Your task to perform on an android device: change the clock style Image 0: 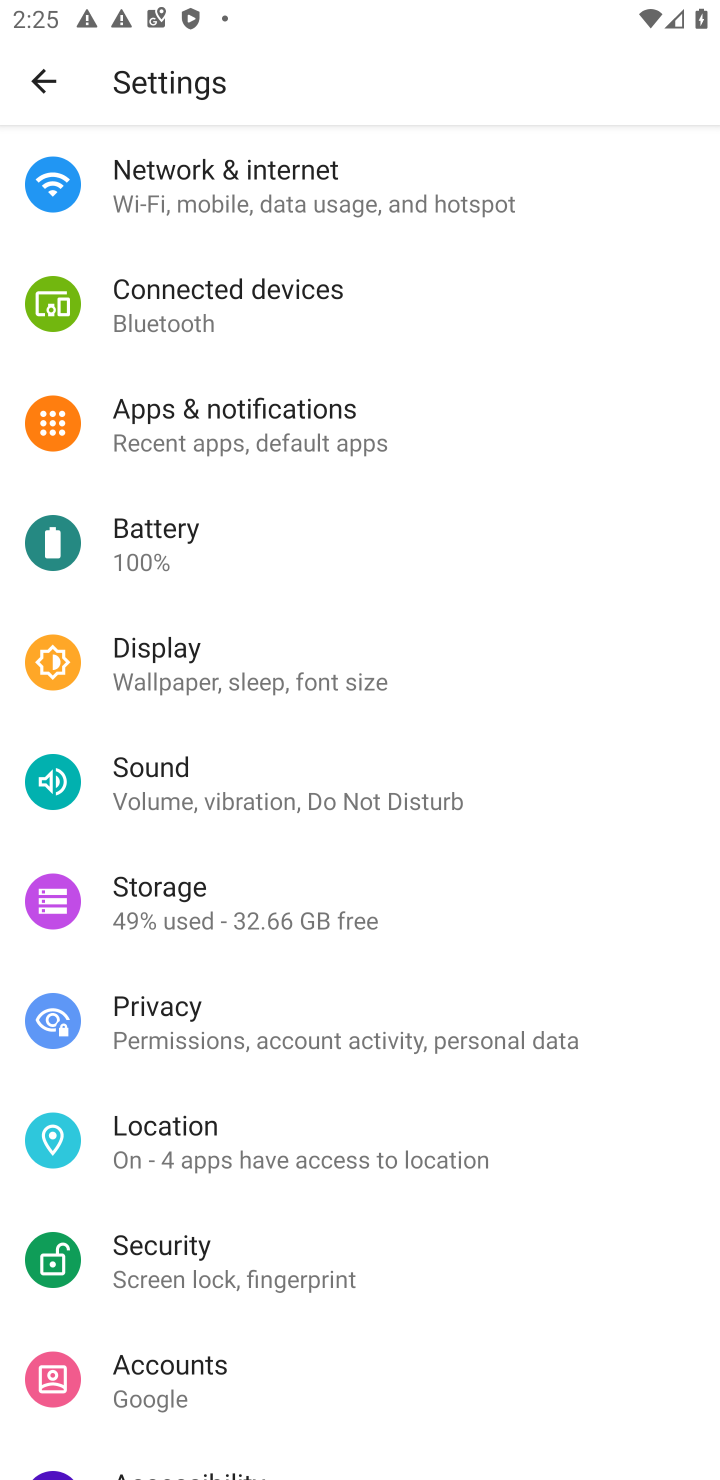
Step 0: press home button
Your task to perform on an android device: change the clock style Image 1: 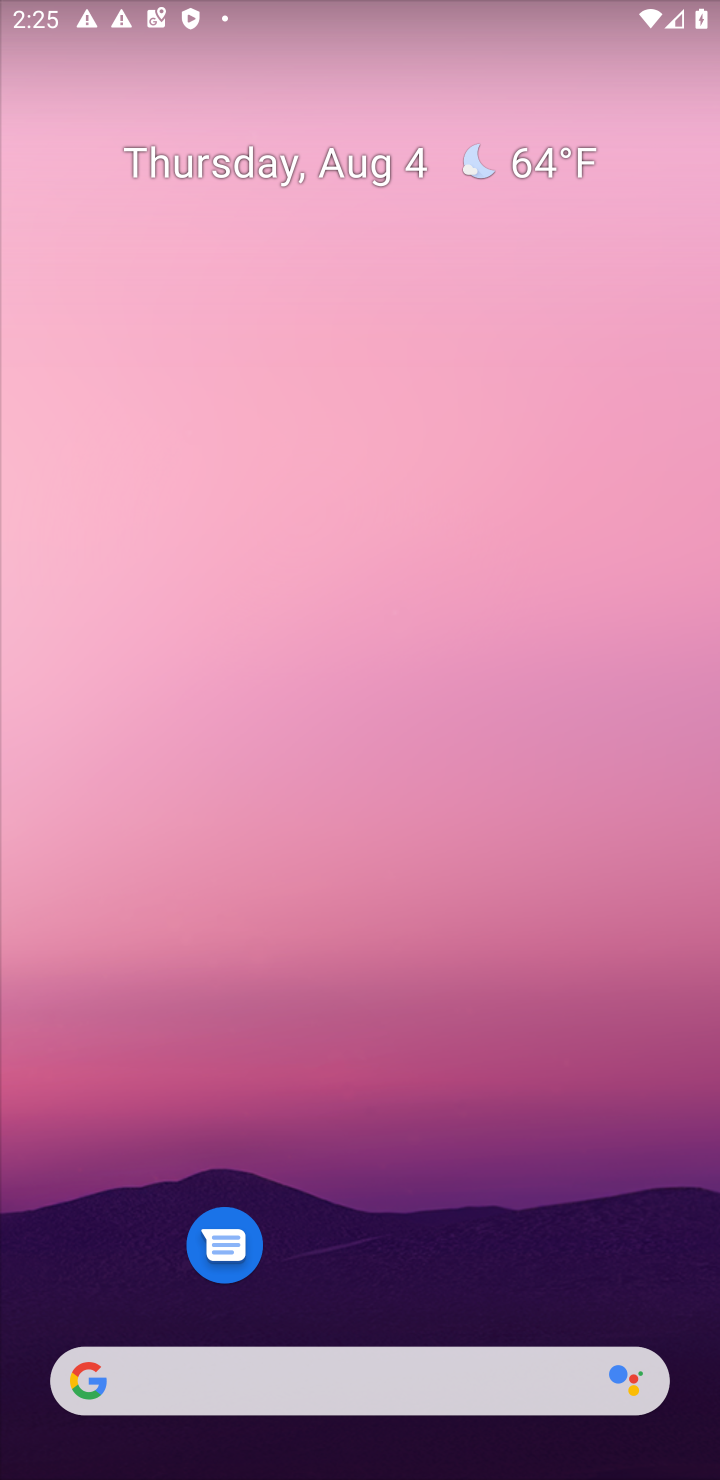
Step 1: drag from (561, 1188) to (571, 2)
Your task to perform on an android device: change the clock style Image 2: 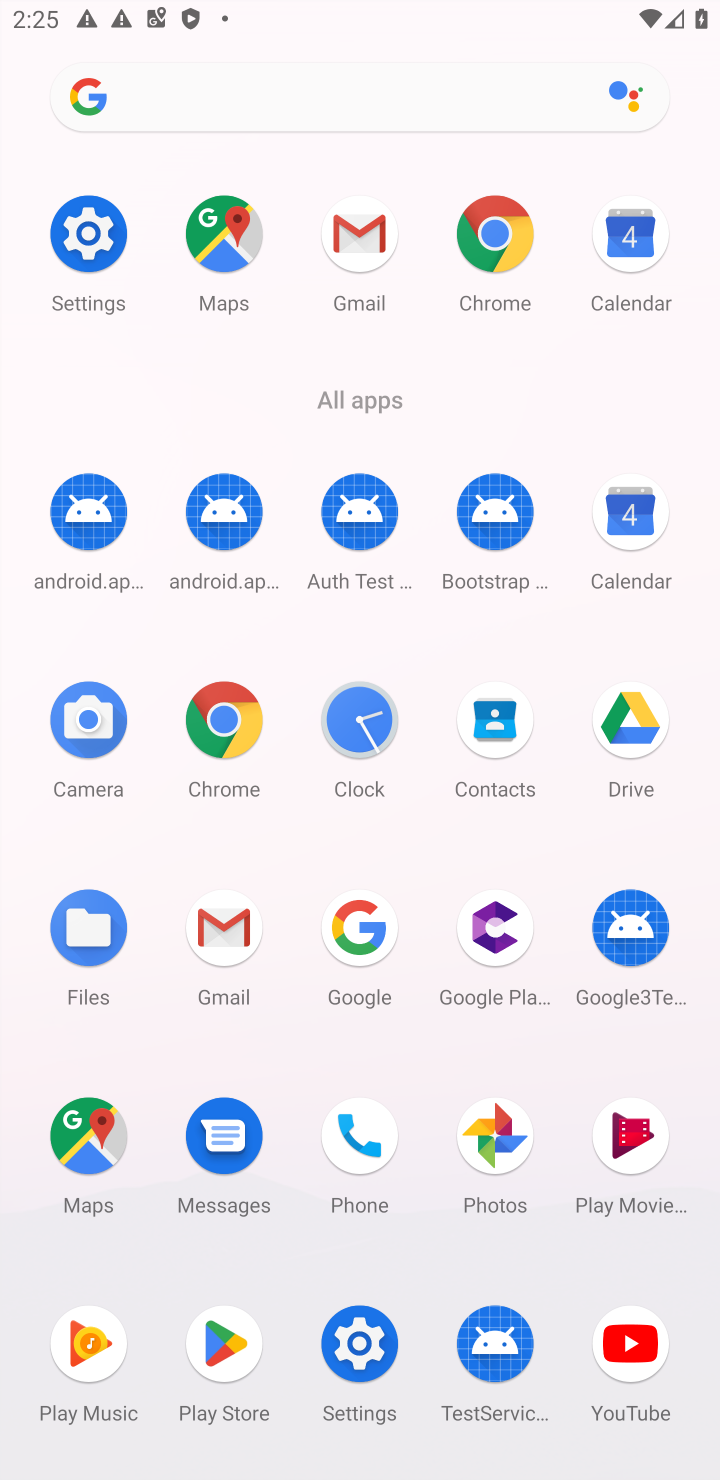
Step 2: click (375, 709)
Your task to perform on an android device: change the clock style Image 3: 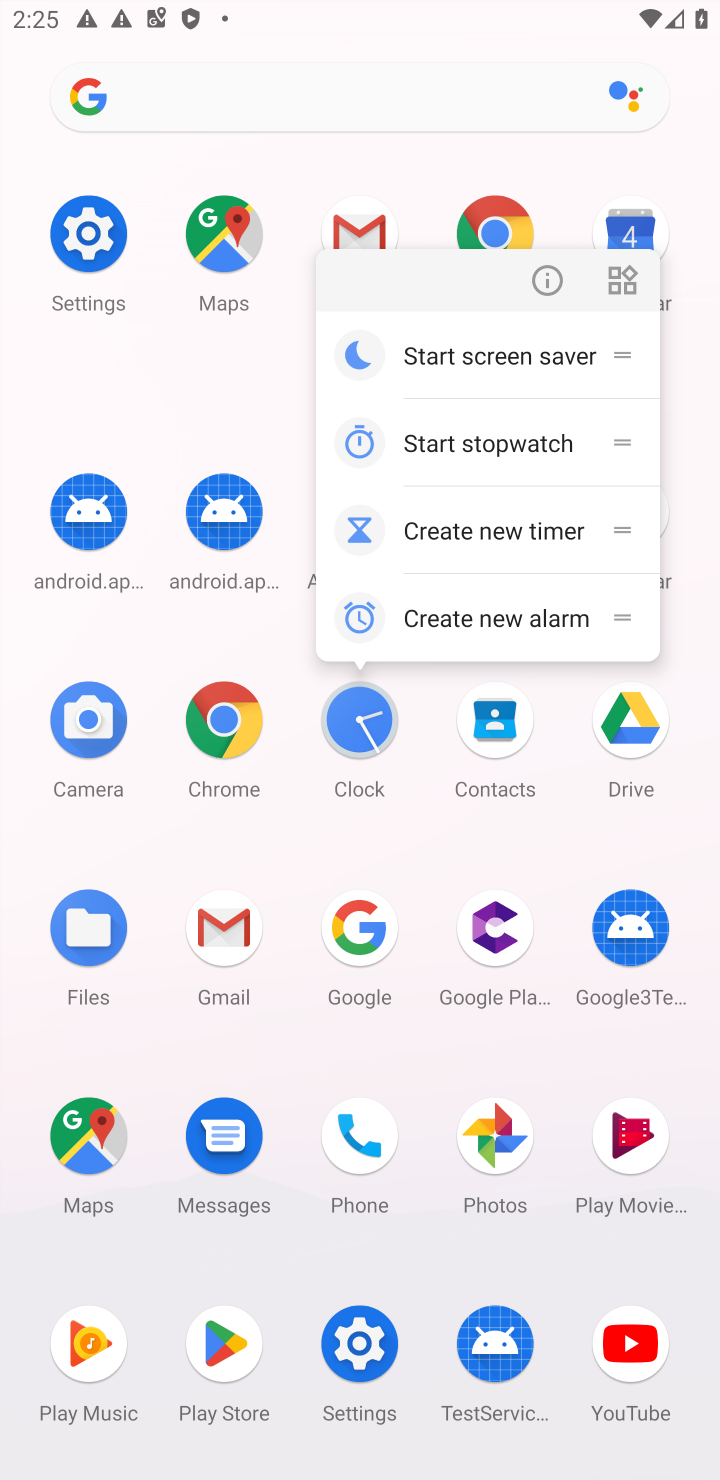
Step 3: click (349, 706)
Your task to perform on an android device: change the clock style Image 4: 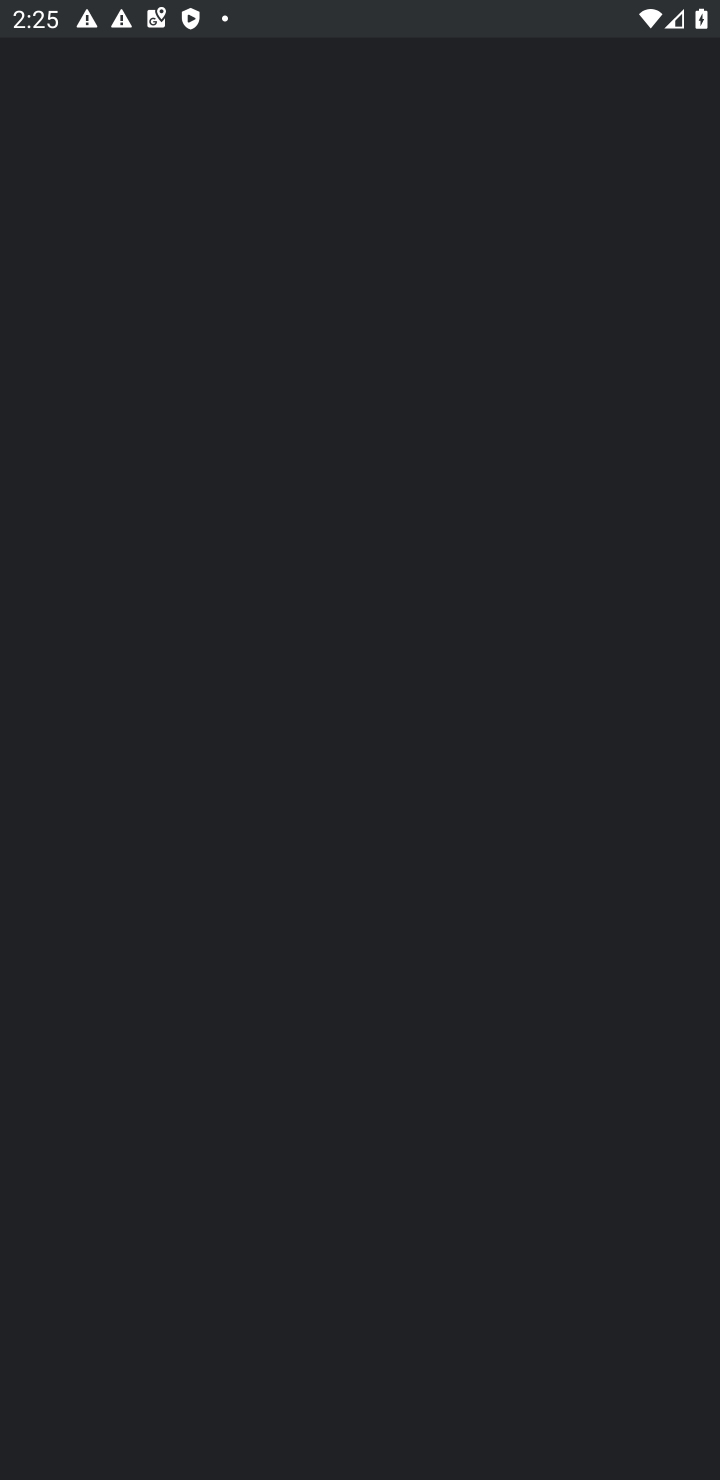
Step 4: click (360, 739)
Your task to perform on an android device: change the clock style Image 5: 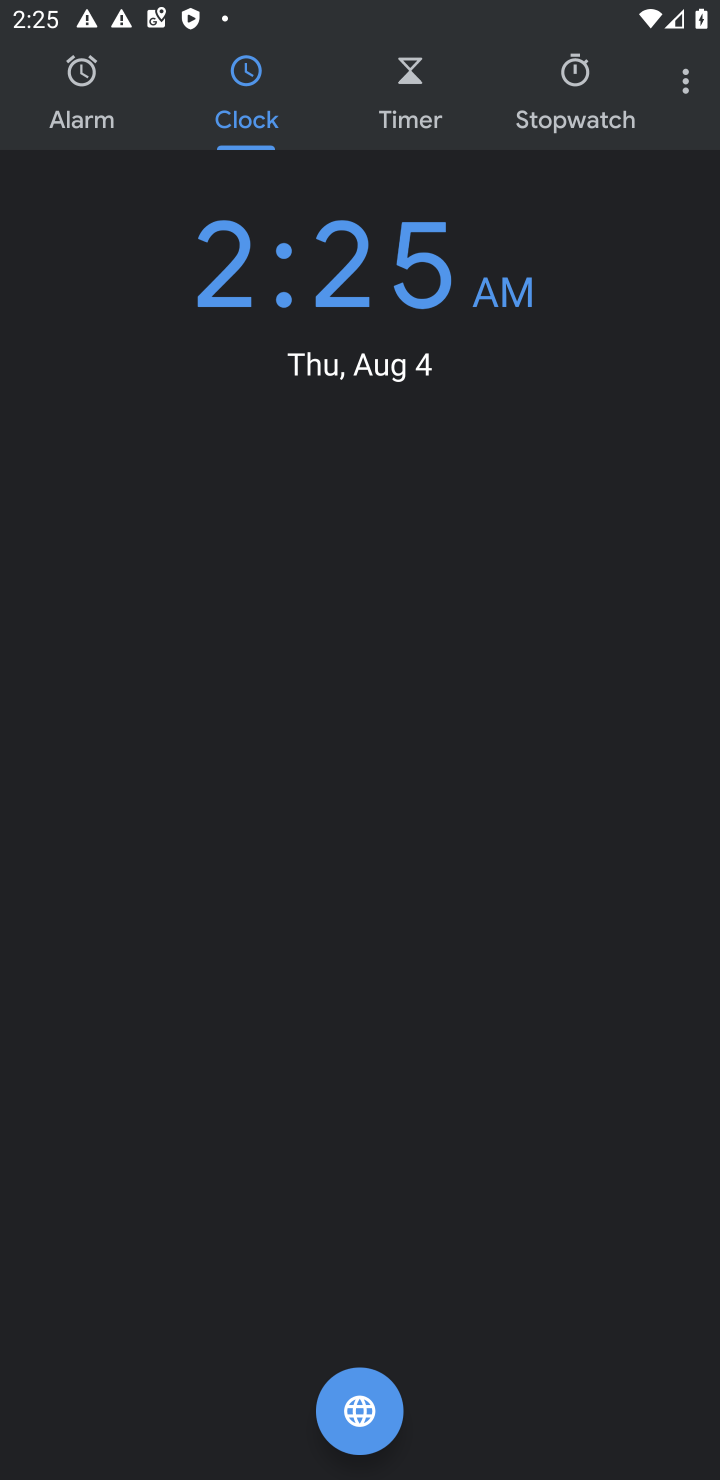
Step 5: click (696, 78)
Your task to perform on an android device: change the clock style Image 6: 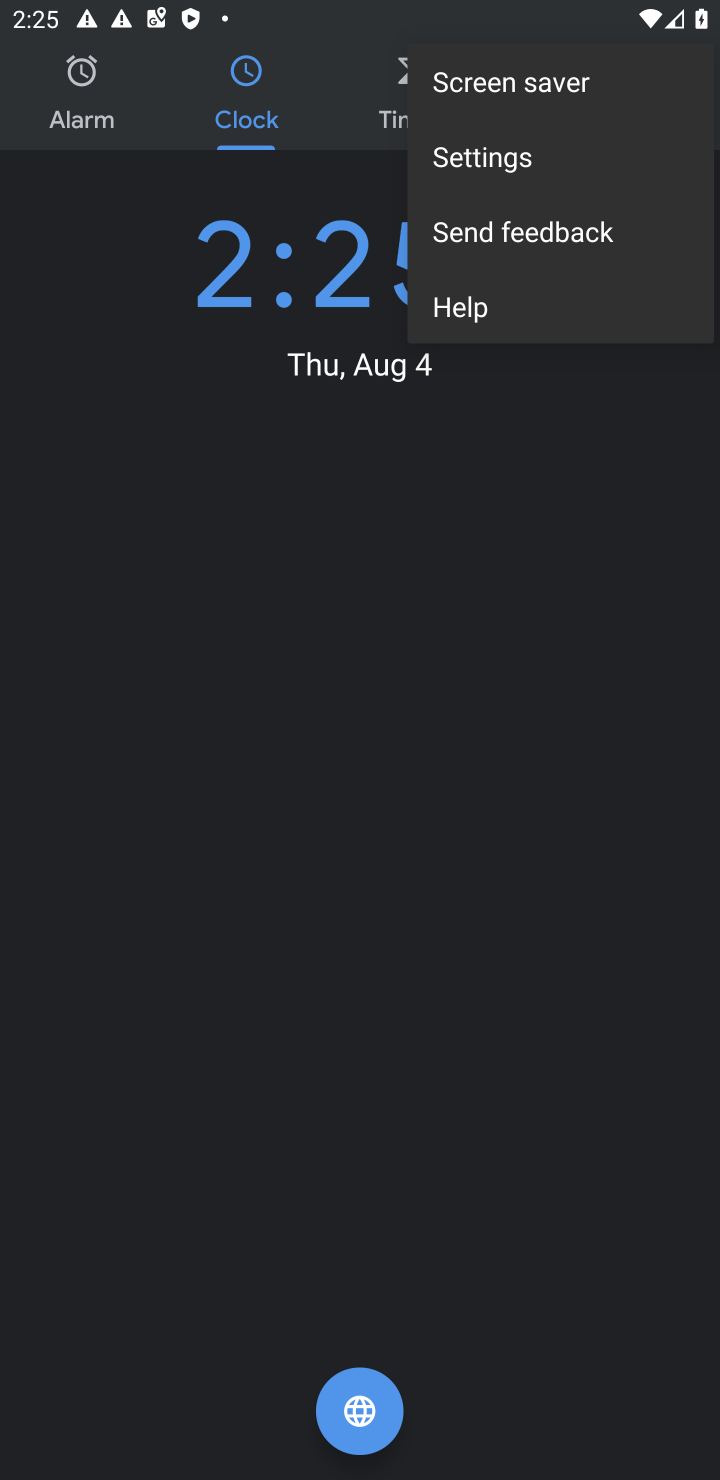
Step 6: click (529, 136)
Your task to perform on an android device: change the clock style Image 7: 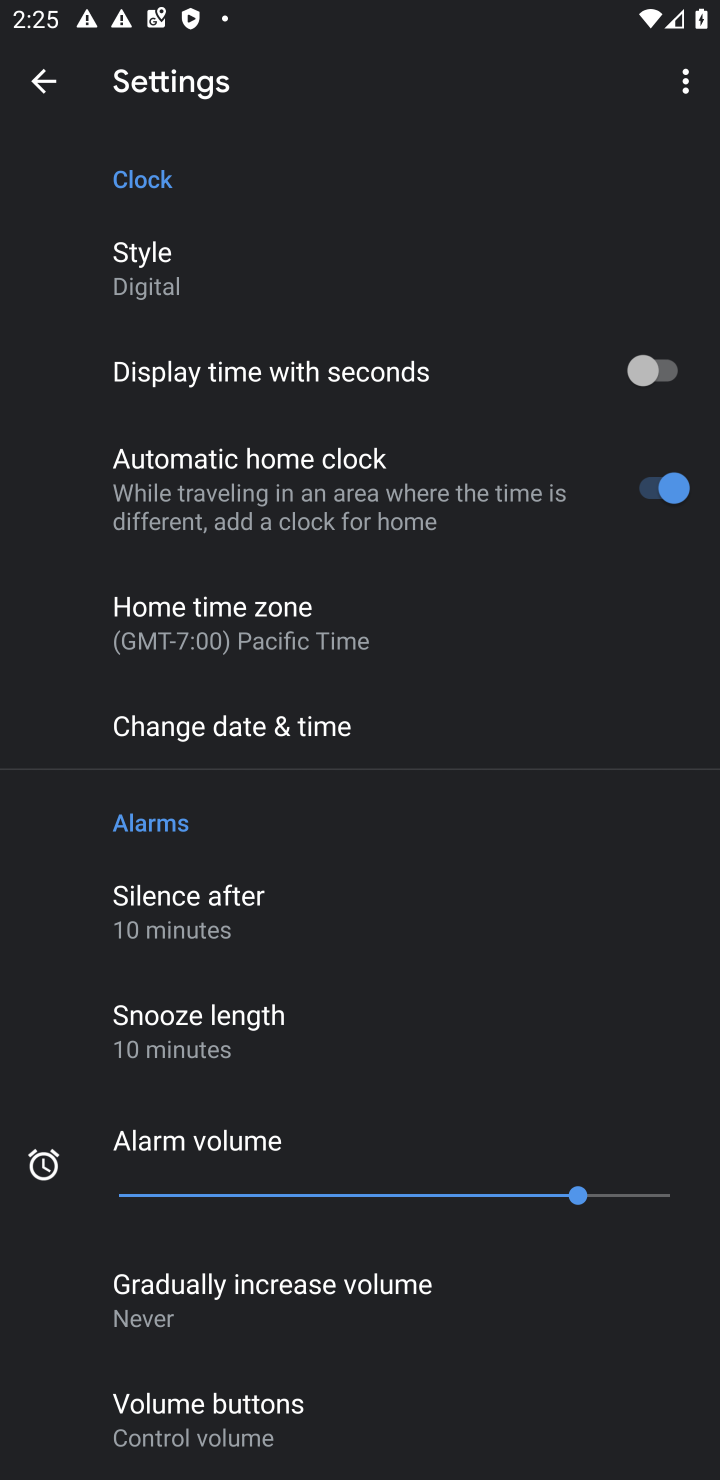
Step 7: click (198, 285)
Your task to perform on an android device: change the clock style Image 8: 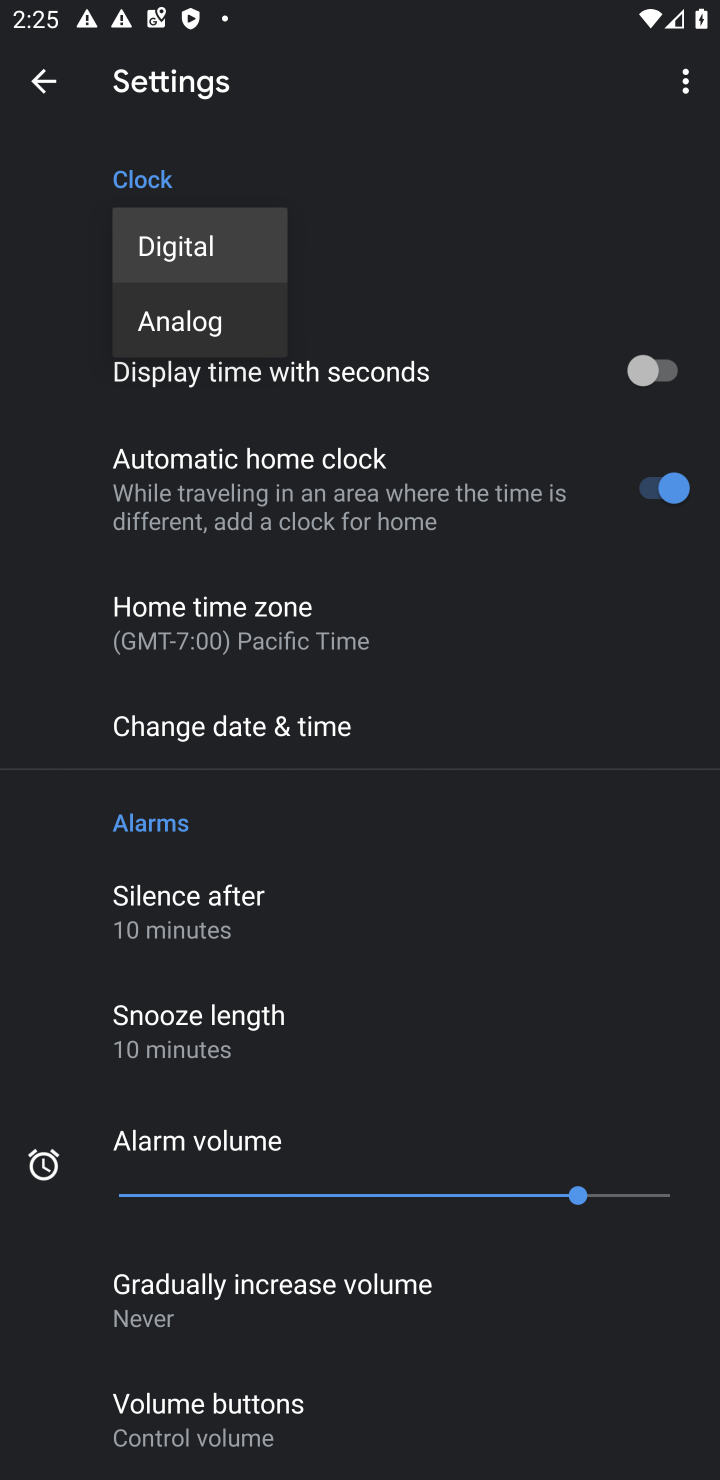
Step 8: click (198, 285)
Your task to perform on an android device: change the clock style Image 9: 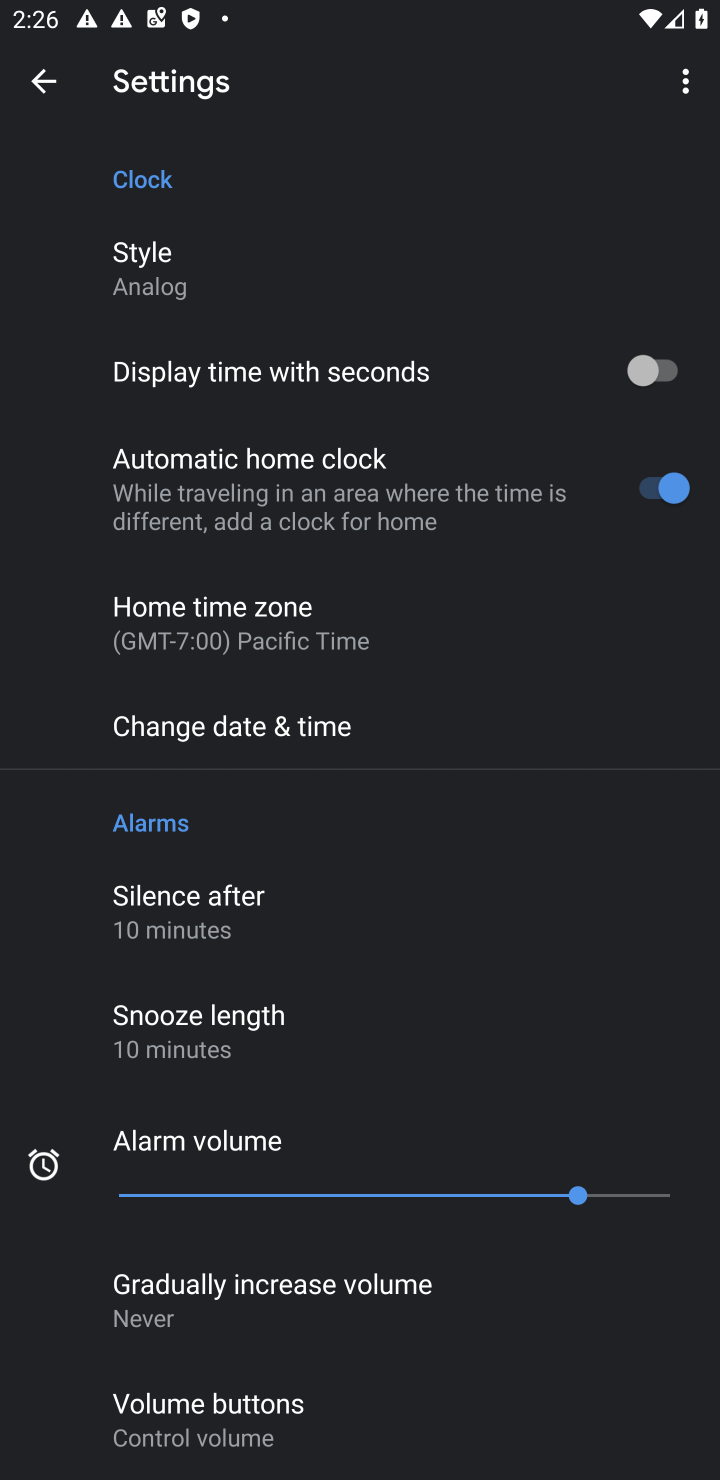
Step 9: task complete